Your task to perform on an android device: Search for Mexican restaurants on Maps Image 0: 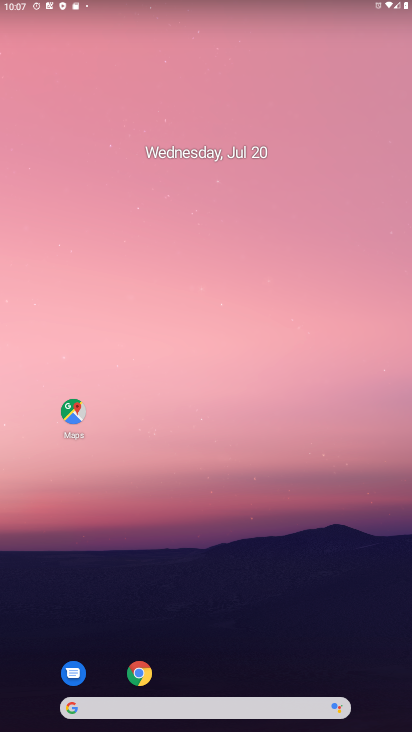
Step 0: drag from (201, 725) to (201, 220)
Your task to perform on an android device: Search for Mexican restaurants on Maps Image 1: 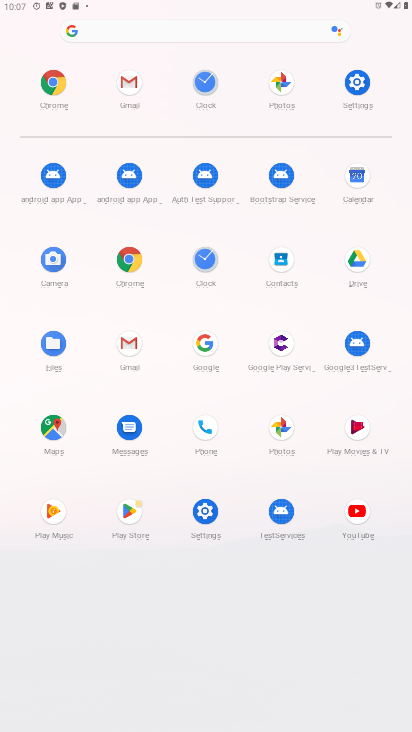
Step 1: click (52, 423)
Your task to perform on an android device: Search for Mexican restaurants on Maps Image 2: 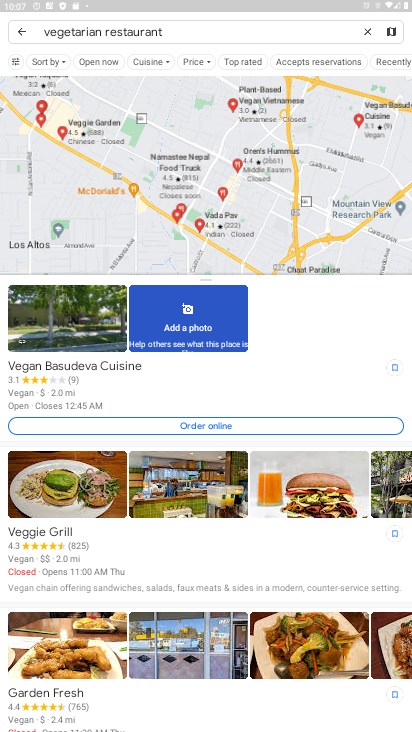
Step 2: click (365, 31)
Your task to perform on an android device: Search for Mexican restaurants on Maps Image 3: 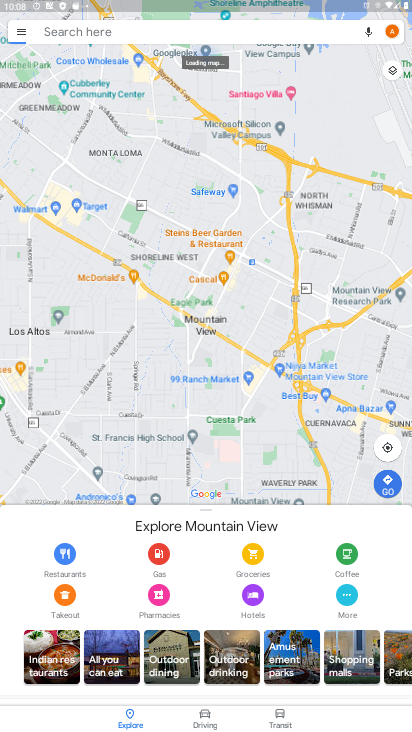
Step 3: click (187, 33)
Your task to perform on an android device: Search for Mexican restaurants on Maps Image 4: 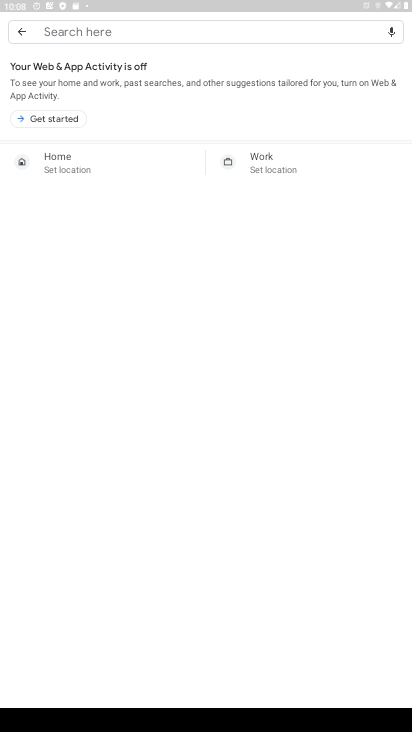
Step 4: type "<exican restaurants"
Your task to perform on an android device: Search for Mexican restaurants on Maps Image 5: 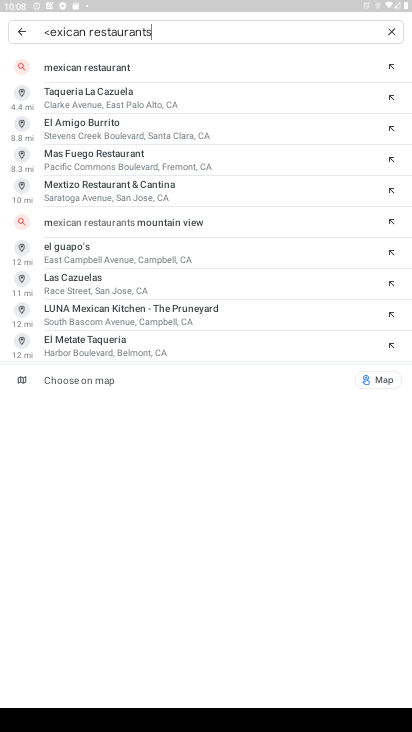
Step 5: click (67, 63)
Your task to perform on an android device: Search for Mexican restaurants on Maps Image 6: 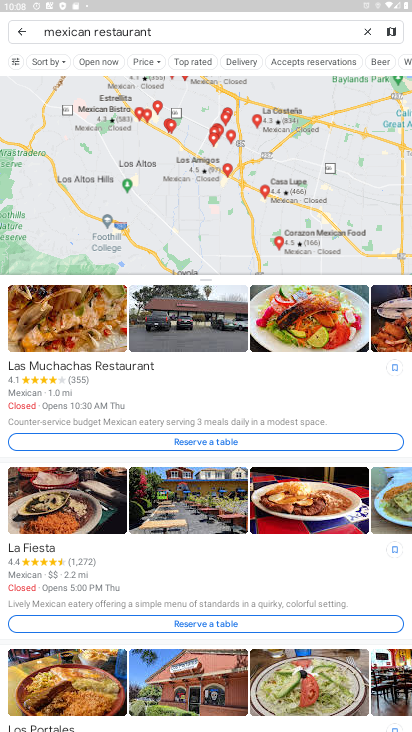
Step 6: task complete